Your task to perform on an android device: Go to internet settings Image 0: 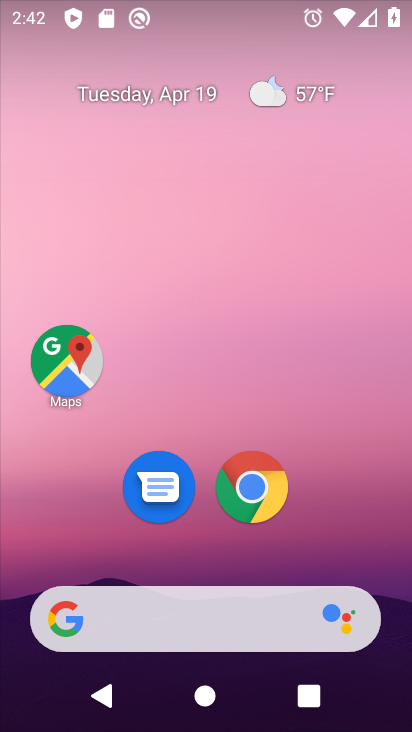
Step 0: drag from (379, 509) to (377, 173)
Your task to perform on an android device: Go to internet settings Image 1: 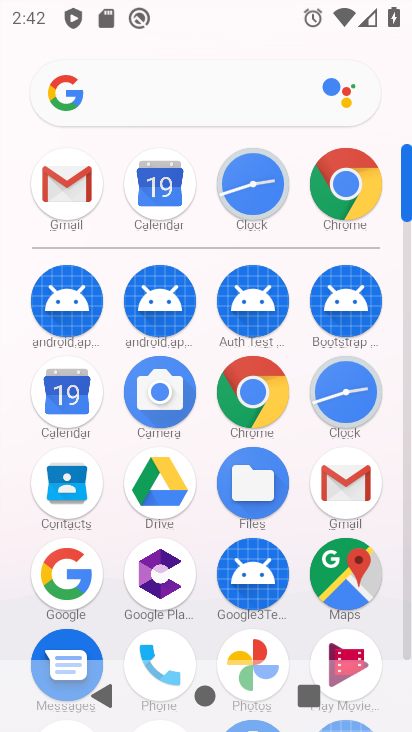
Step 1: drag from (203, 620) to (204, 304)
Your task to perform on an android device: Go to internet settings Image 2: 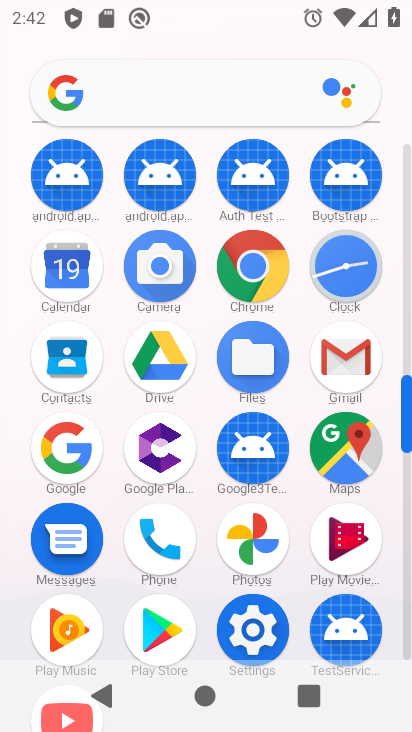
Step 2: click (238, 635)
Your task to perform on an android device: Go to internet settings Image 3: 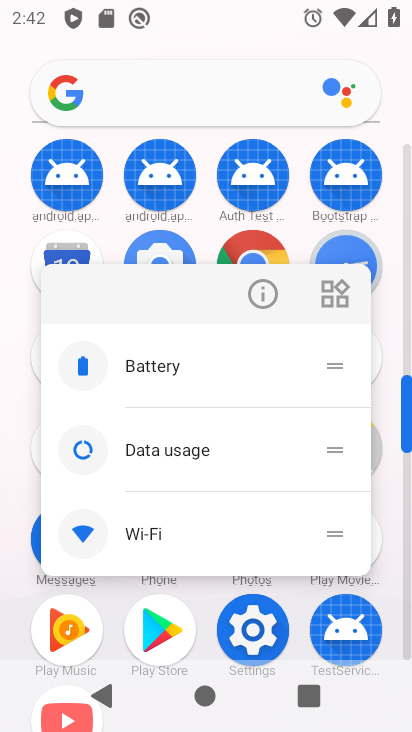
Step 3: click (238, 635)
Your task to perform on an android device: Go to internet settings Image 4: 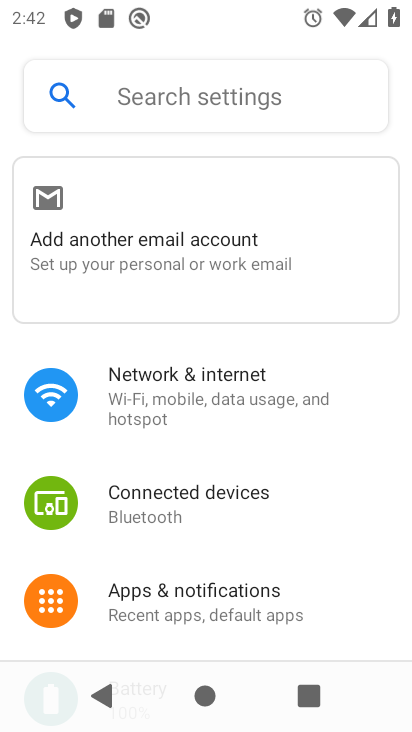
Step 4: click (204, 370)
Your task to perform on an android device: Go to internet settings Image 5: 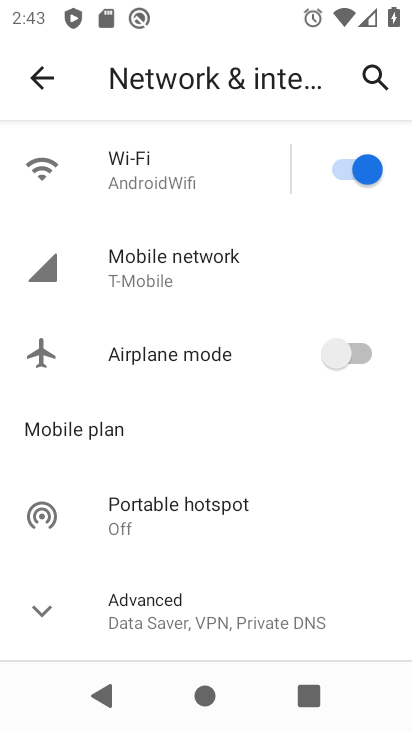
Step 5: click (181, 248)
Your task to perform on an android device: Go to internet settings Image 6: 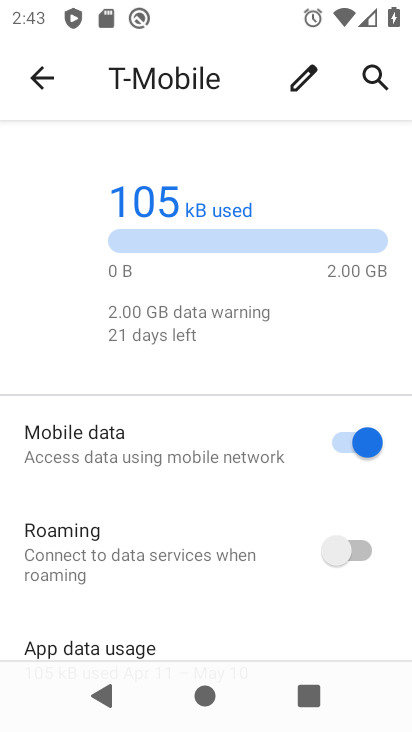
Step 6: task complete